Your task to perform on an android device: move a message to another label in the gmail app Image 0: 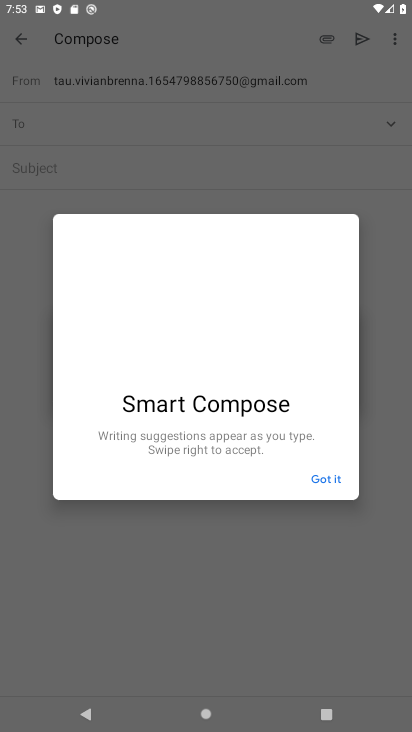
Step 0: press home button
Your task to perform on an android device: move a message to another label in the gmail app Image 1: 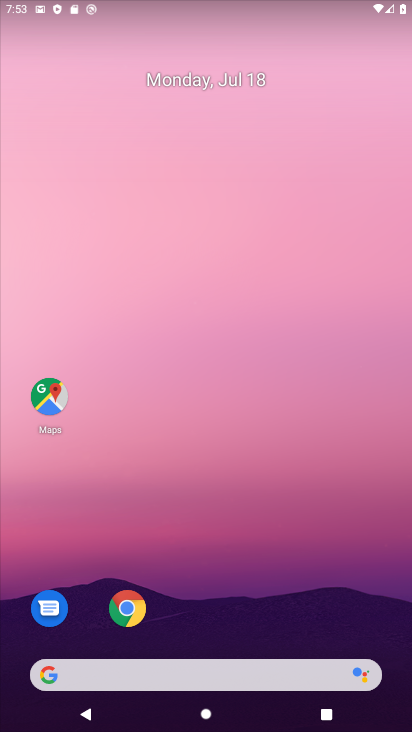
Step 1: drag from (234, 719) to (241, 274)
Your task to perform on an android device: move a message to another label in the gmail app Image 2: 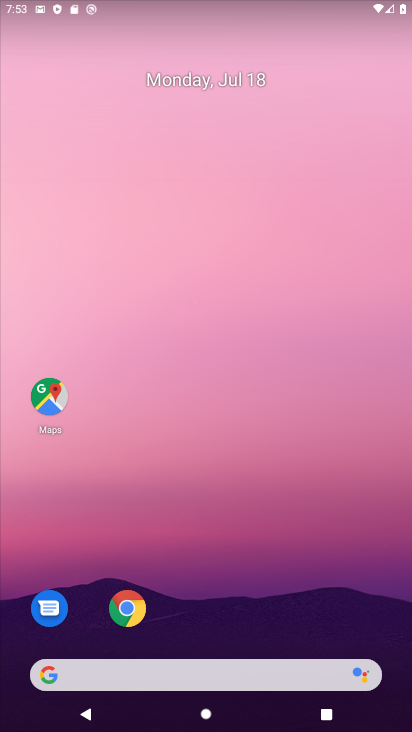
Step 2: drag from (239, 724) to (242, 149)
Your task to perform on an android device: move a message to another label in the gmail app Image 3: 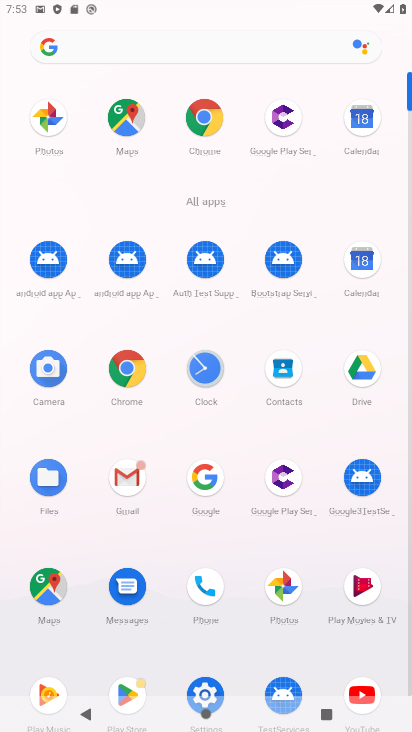
Step 3: click (129, 472)
Your task to perform on an android device: move a message to another label in the gmail app Image 4: 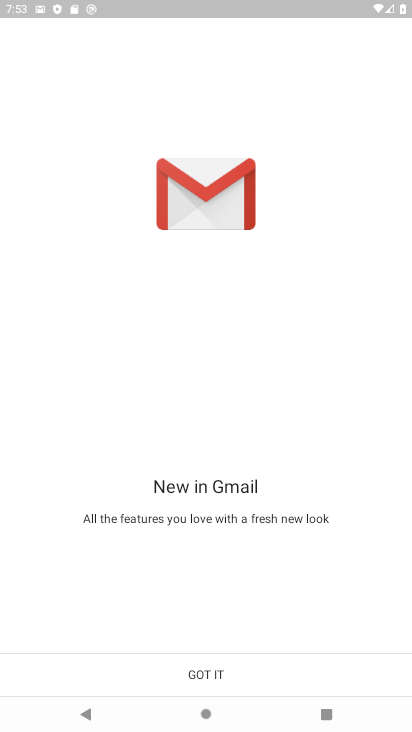
Step 4: click (198, 675)
Your task to perform on an android device: move a message to another label in the gmail app Image 5: 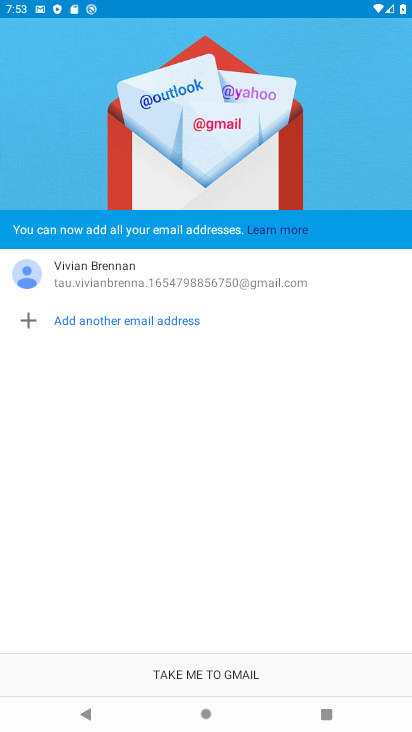
Step 5: click (198, 671)
Your task to perform on an android device: move a message to another label in the gmail app Image 6: 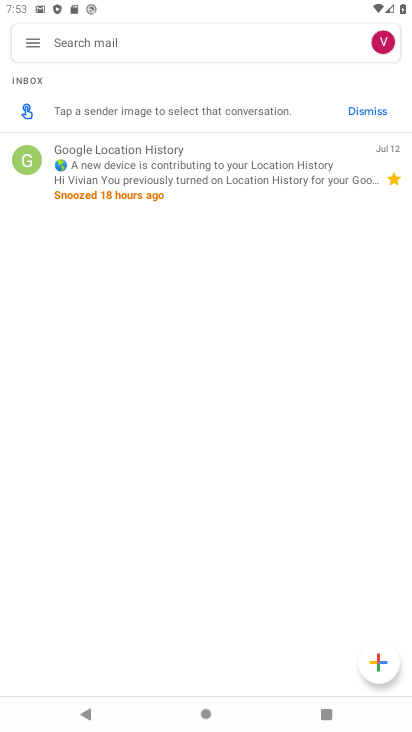
Step 6: click (204, 172)
Your task to perform on an android device: move a message to another label in the gmail app Image 7: 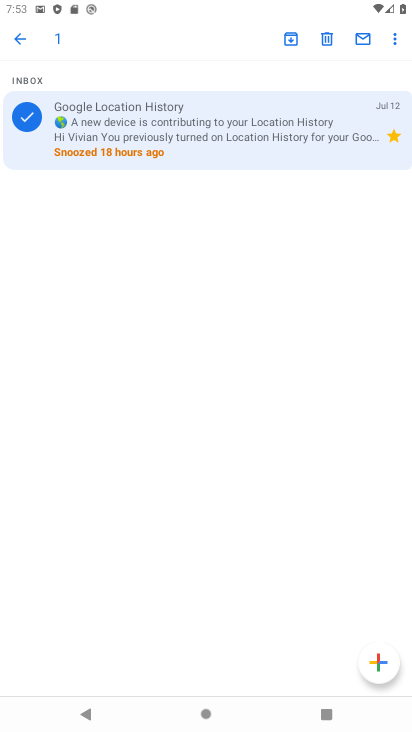
Step 7: click (395, 46)
Your task to perform on an android device: move a message to another label in the gmail app Image 8: 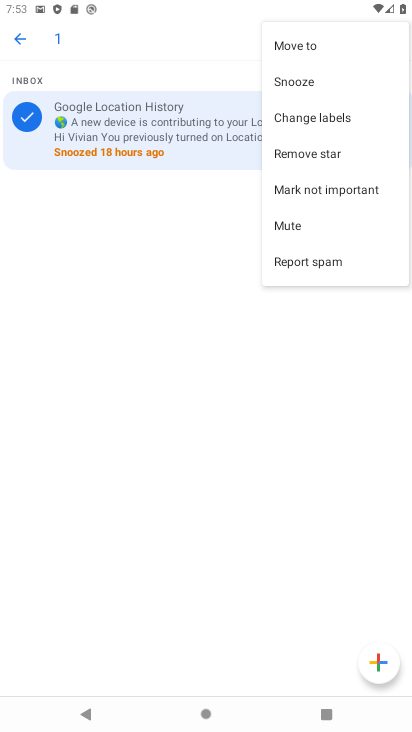
Step 8: click (314, 46)
Your task to perform on an android device: move a message to another label in the gmail app Image 9: 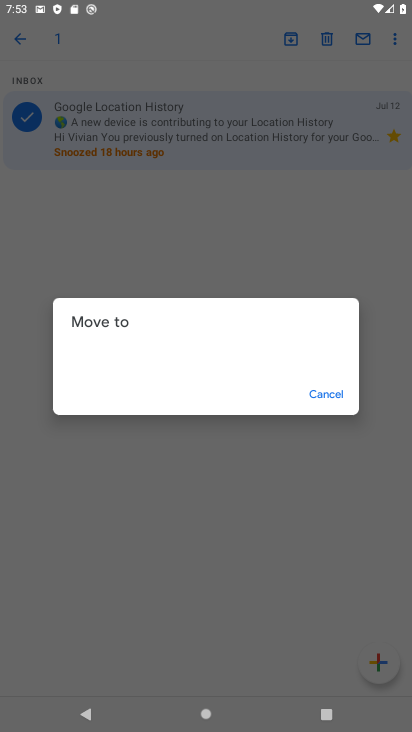
Step 9: task complete